Your task to perform on an android device: see tabs open on other devices in the chrome app Image 0: 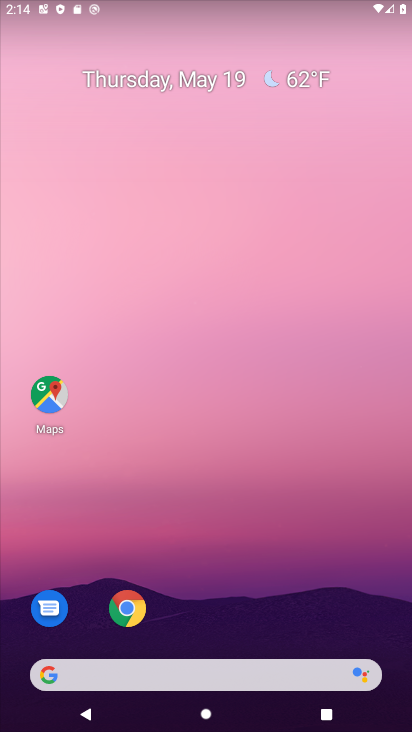
Step 0: click (122, 600)
Your task to perform on an android device: see tabs open on other devices in the chrome app Image 1: 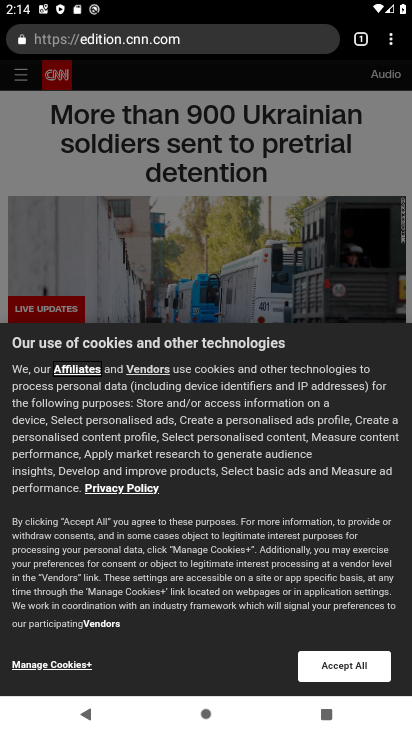
Step 1: click (390, 35)
Your task to perform on an android device: see tabs open on other devices in the chrome app Image 2: 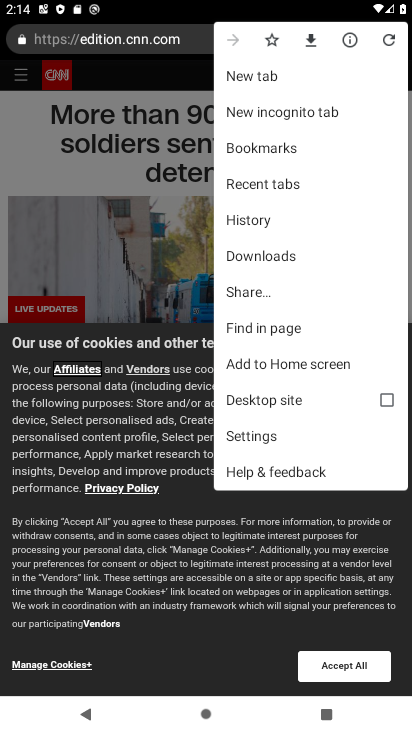
Step 2: click (235, 170)
Your task to perform on an android device: see tabs open on other devices in the chrome app Image 3: 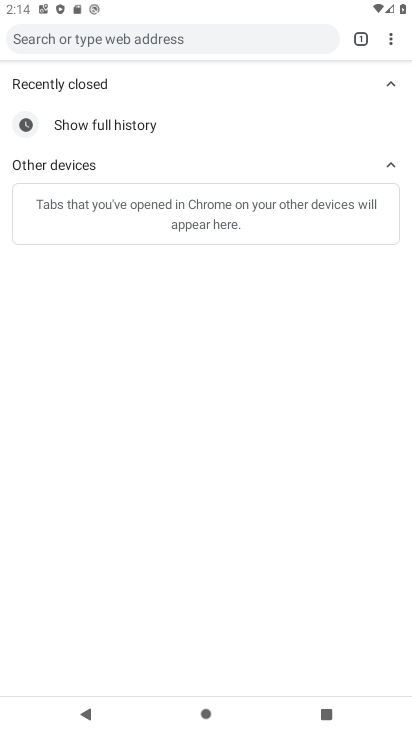
Step 3: task complete